Your task to perform on an android device: turn on data saver in the chrome app Image 0: 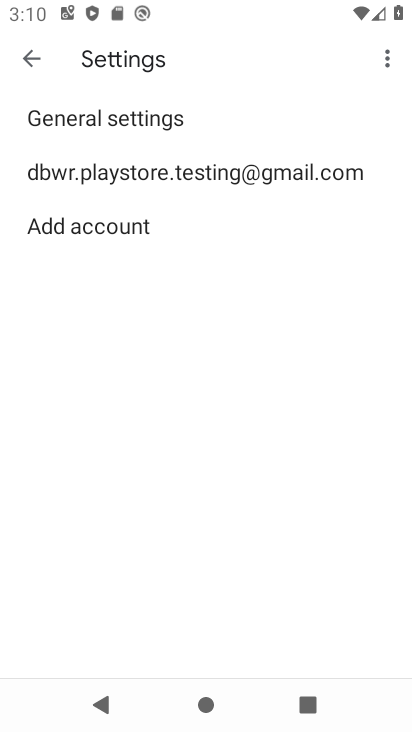
Step 0: press home button
Your task to perform on an android device: turn on data saver in the chrome app Image 1: 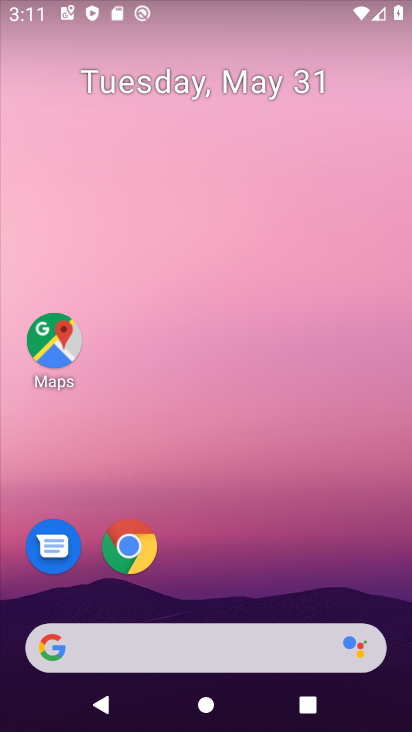
Step 1: click (146, 533)
Your task to perform on an android device: turn on data saver in the chrome app Image 2: 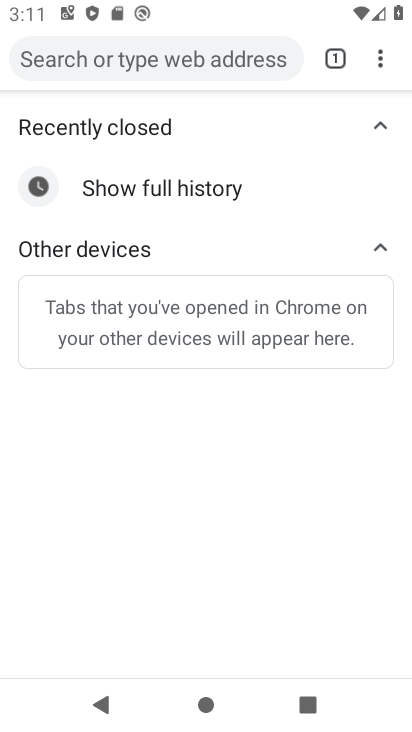
Step 2: click (376, 60)
Your task to perform on an android device: turn on data saver in the chrome app Image 3: 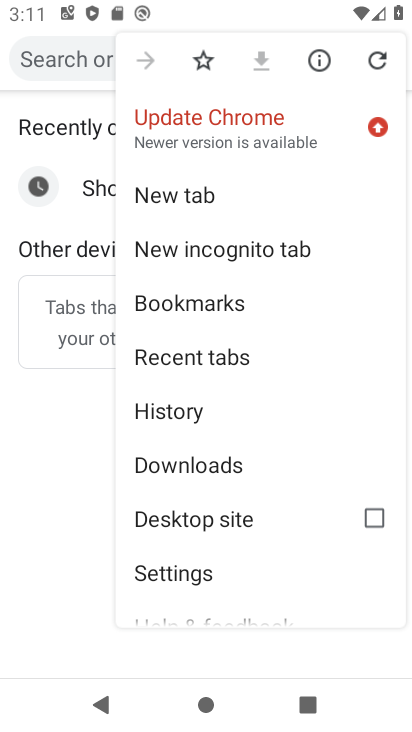
Step 3: click (222, 568)
Your task to perform on an android device: turn on data saver in the chrome app Image 4: 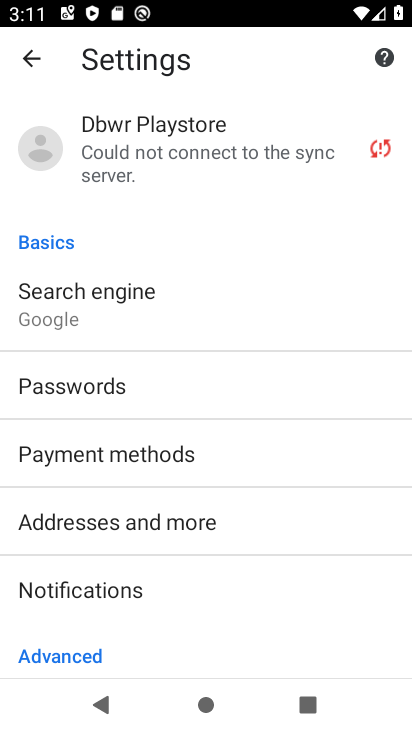
Step 4: drag from (234, 607) to (232, 227)
Your task to perform on an android device: turn on data saver in the chrome app Image 5: 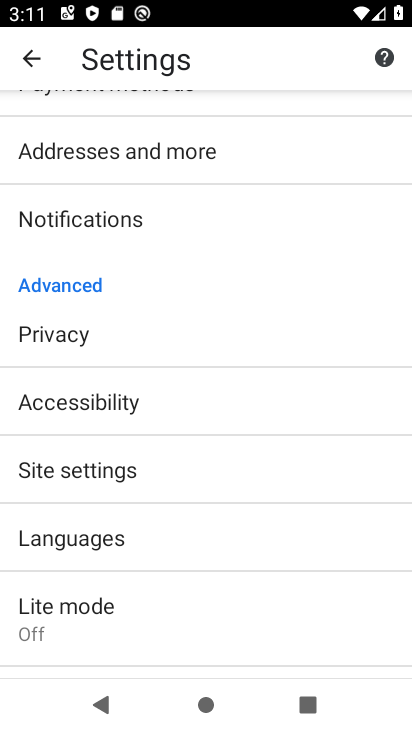
Step 5: click (155, 616)
Your task to perform on an android device: turn on data saver in the chrome app Image 6: 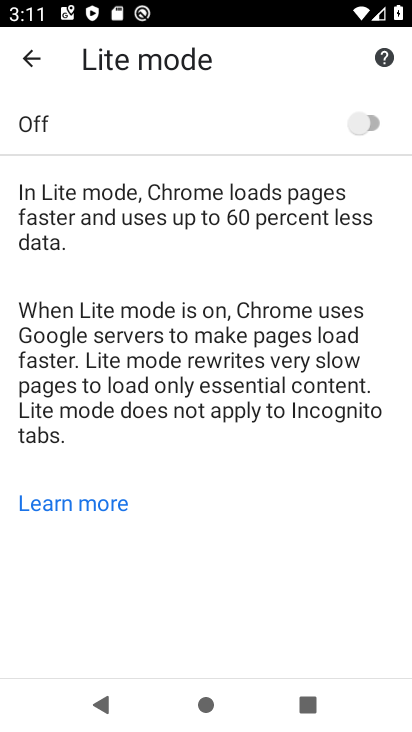
Step 6: click (358, 114)
Your task to perform on an android device: turn on data saver in the chrome app Image 7: 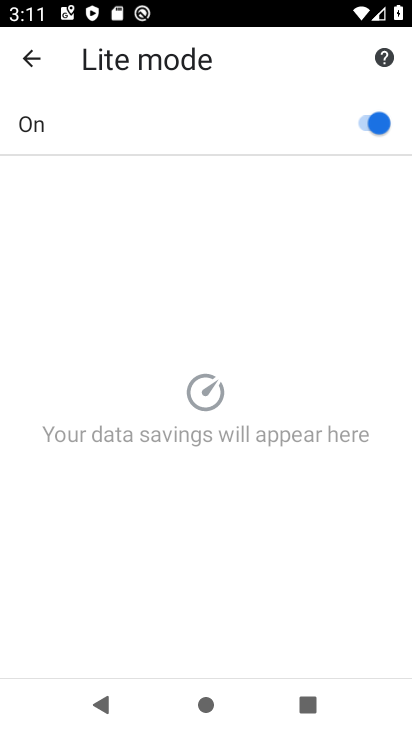
Step 7: task complete